Your task to perform on an android device: Open Google Maps Image 0: 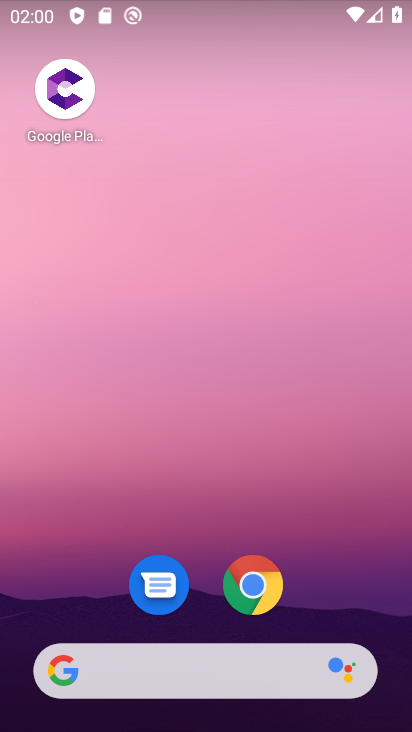
Step 0: drag from (237, 468) to (269, 22)
Your task to perform on an android device: Open Google Maps Image 1: 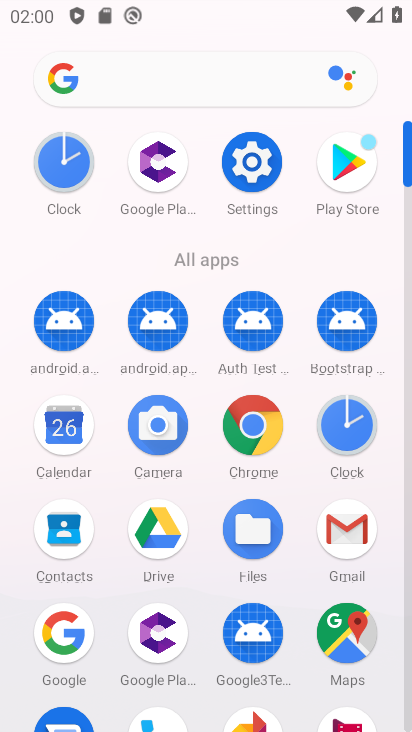
Step 1: click (329, 636)
Your task to perform on an android device: Open Google Maps Image 2: 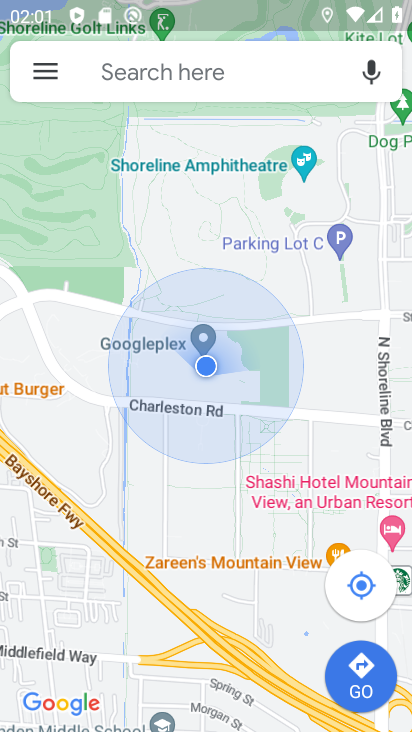
Step 2: task complete